Your task to perform on an android device: change your default location settings in chrome Image 0: 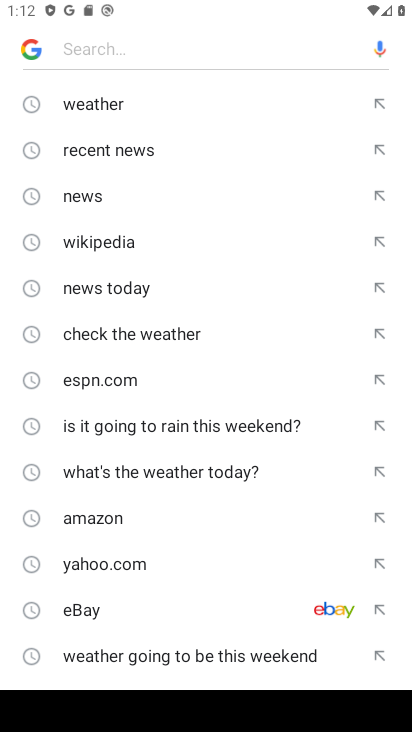
Step 0: press home button
Your task to perform on an android device: change your default location settings in chrome Image 1: 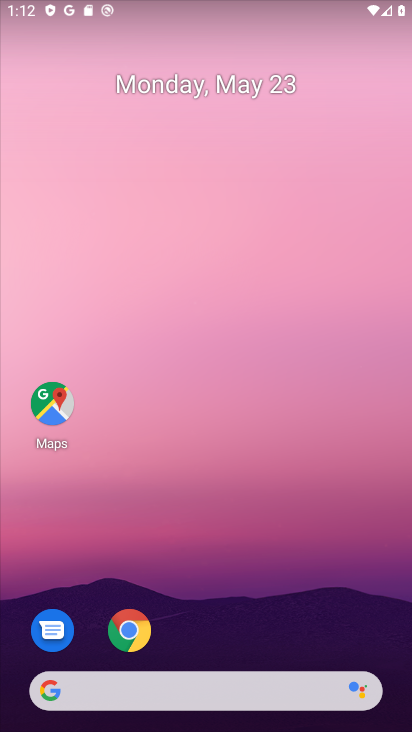
Step 1: click (130, 636)
Your task to perform on an android device: change your default location settings in chrome Image 2: 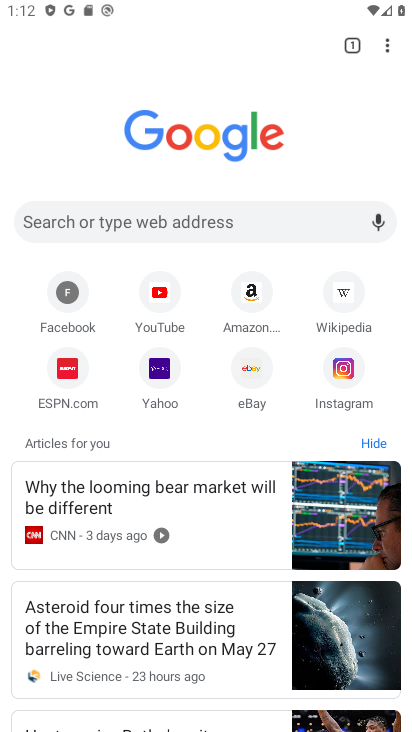
Step 2: click (390, 46)
Your task to perform on an android device: change your default location settings in chrome Image 3: 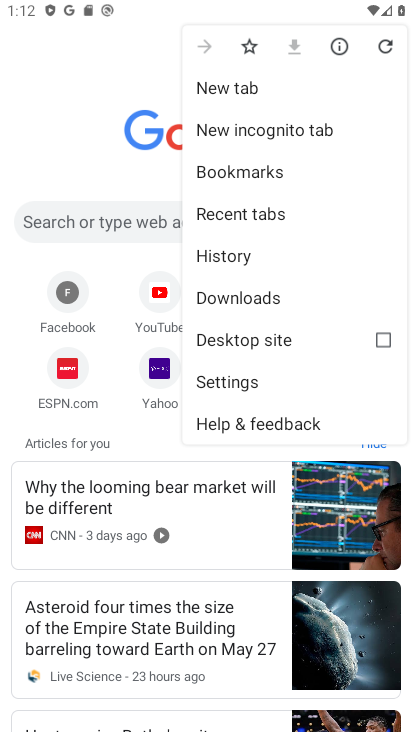
Step 3: click (235, 376)
Your task to perform on an android device: change your default location settings in chrome Image 4: 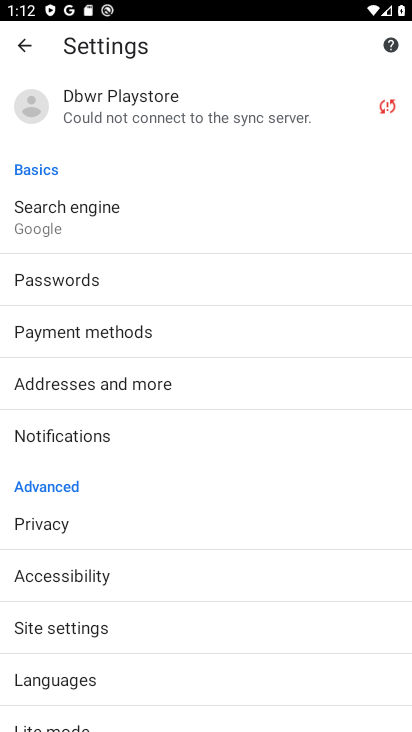
Step 4: click (63, 626)
Your task to perform on an android device: change your default location settings in chrome Image 5: 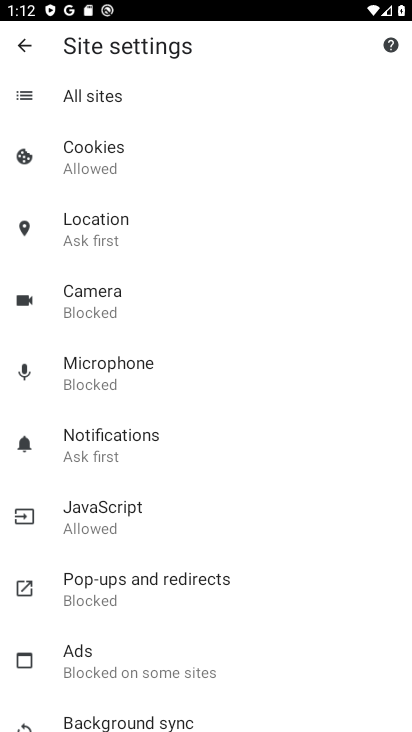
Step 5: click (94, 216)
Your task to perform on an android device: change your default location settings in chrome Image 6: 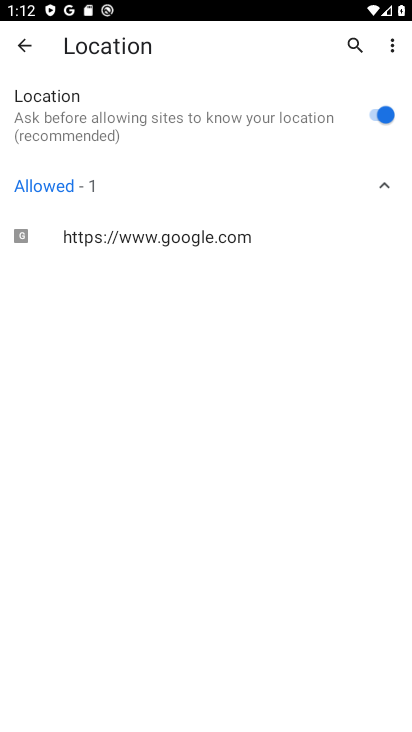
Step 6: click (381, 117)
Your task to perform on an android device: change your default location settings in chrome Image 7: 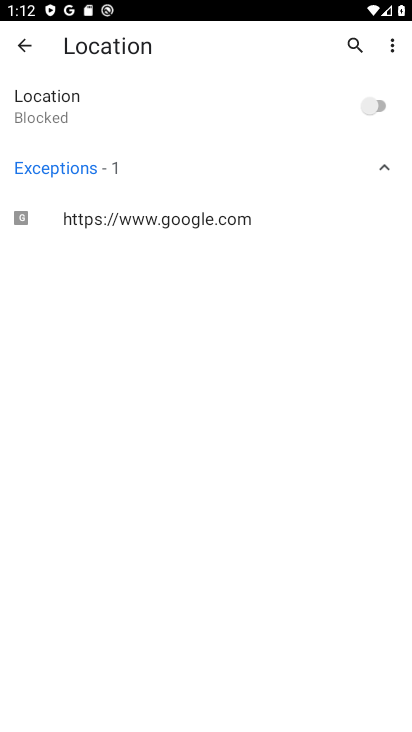
Step 7: task complete